Your task to perform on an android device: What's on my calendar for the rest of the month? Image 0: 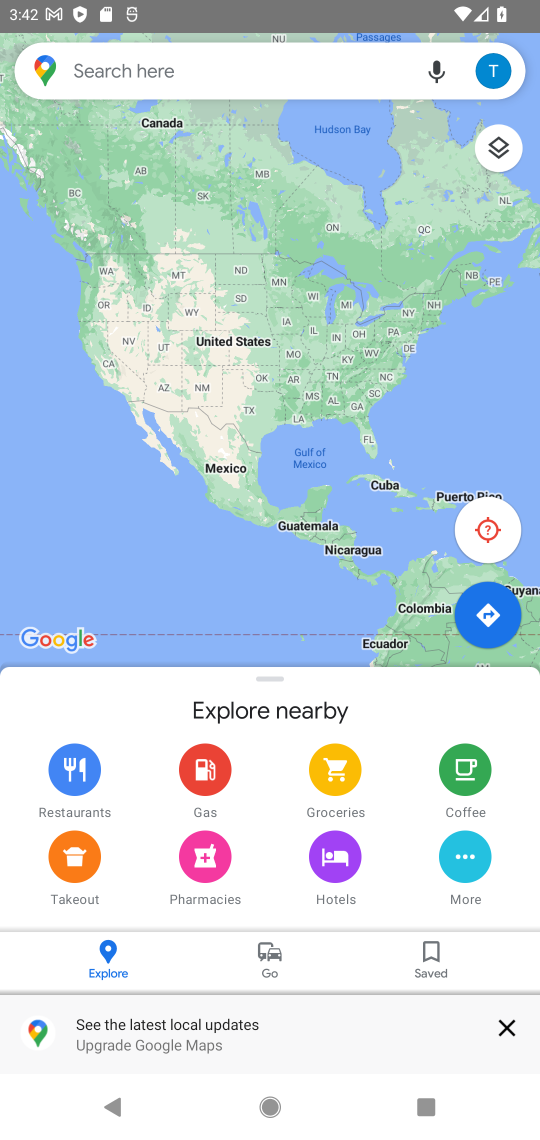
Step 0: press home button
Your task to perform on an android device: What's on my calendar for the rest of the month? Image 1: 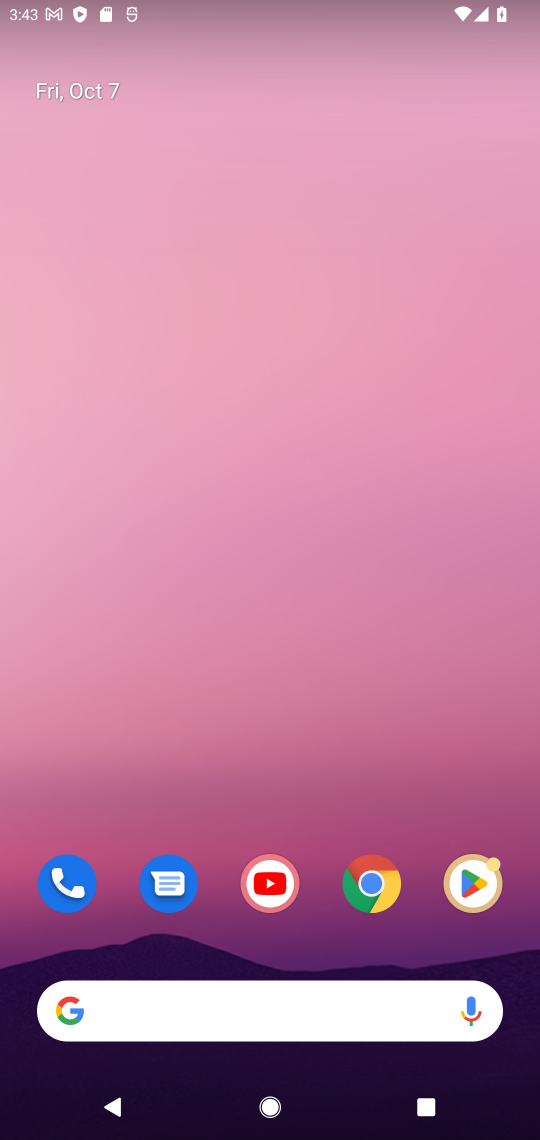
Step 1: drag from (300, 993) to (270, 152)
Your task to perform on an android device: What's on my calendar for the rest of the month? Image 2: 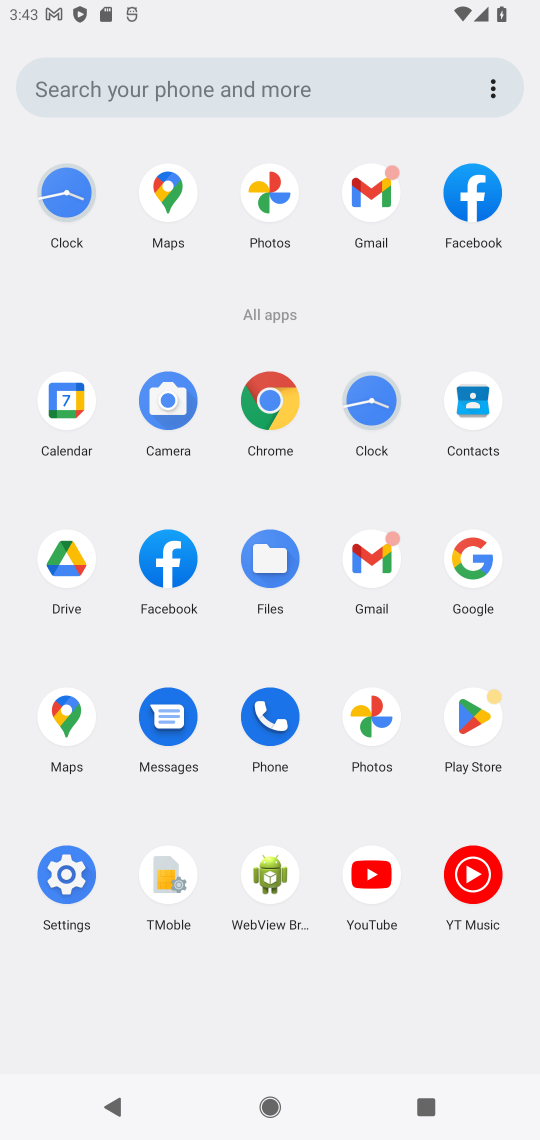
Step 2: click (60, 397)
Your task to perform on an android device: What's on my calendar for the rest of the month? Image 3: 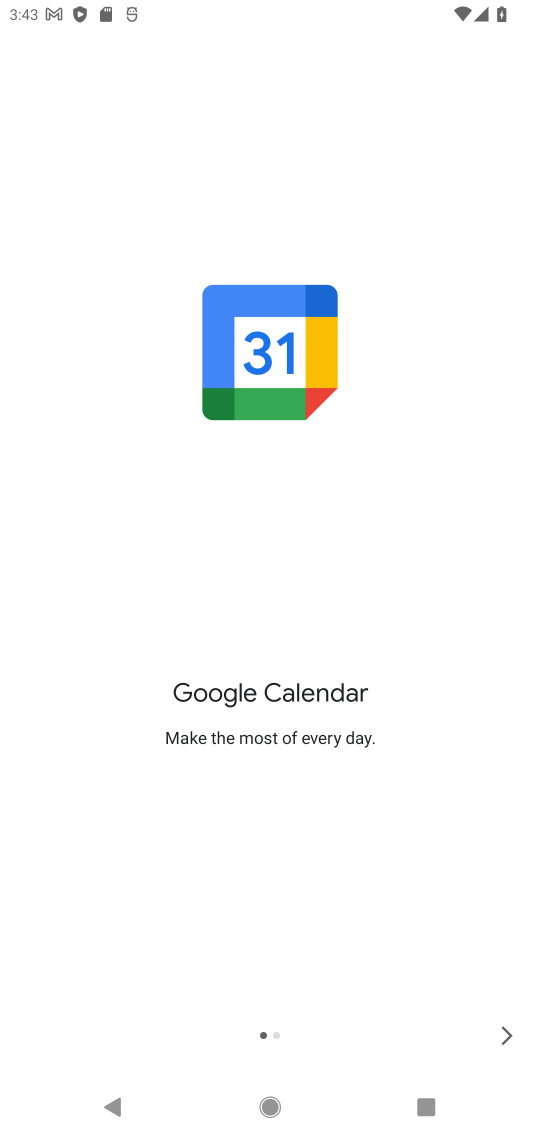
Step 3: click (511, 1037)
Your task to perform on an android device: What's on my calendar for the rest of the month? Image 4: 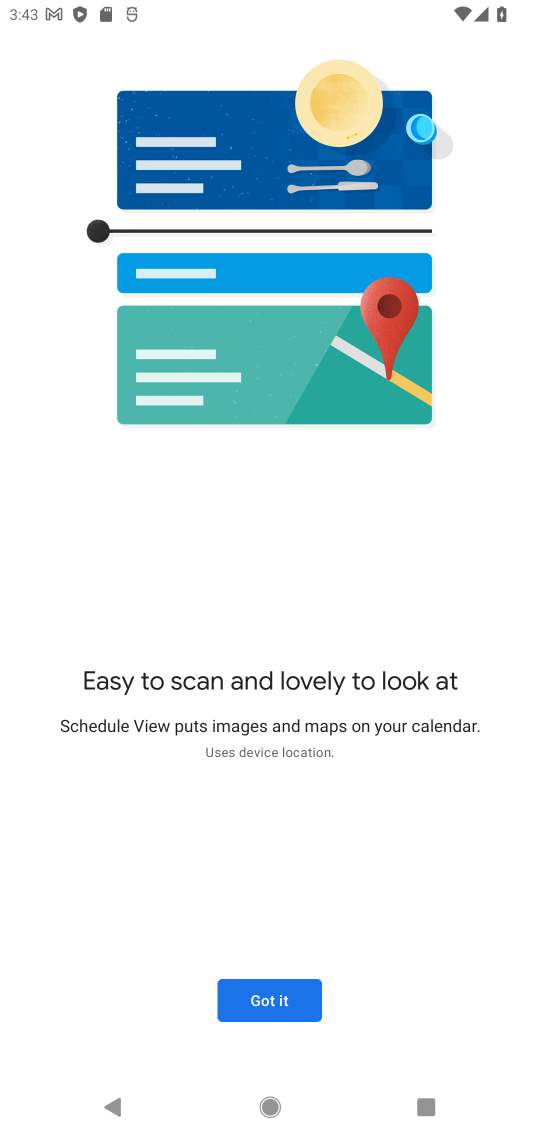
Step 4: click (303, 991)
Your task to perform on an android device: What's on my calendar for the rest of the month? Image 5: 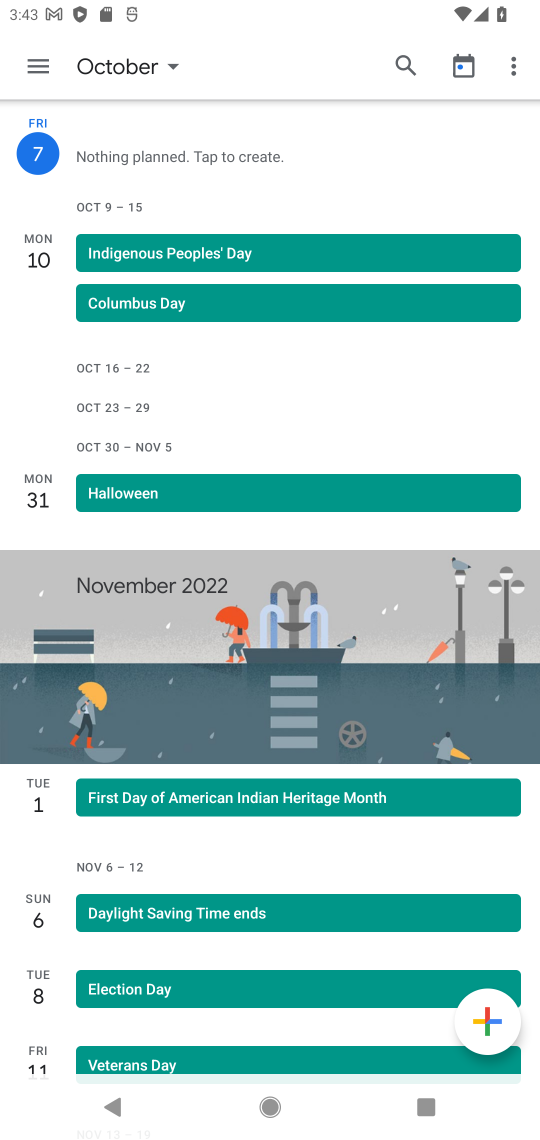
Step 5: click (41, 67)
Your task to perform on an android device: What's on my calendar for the rest of the month? Image 6: 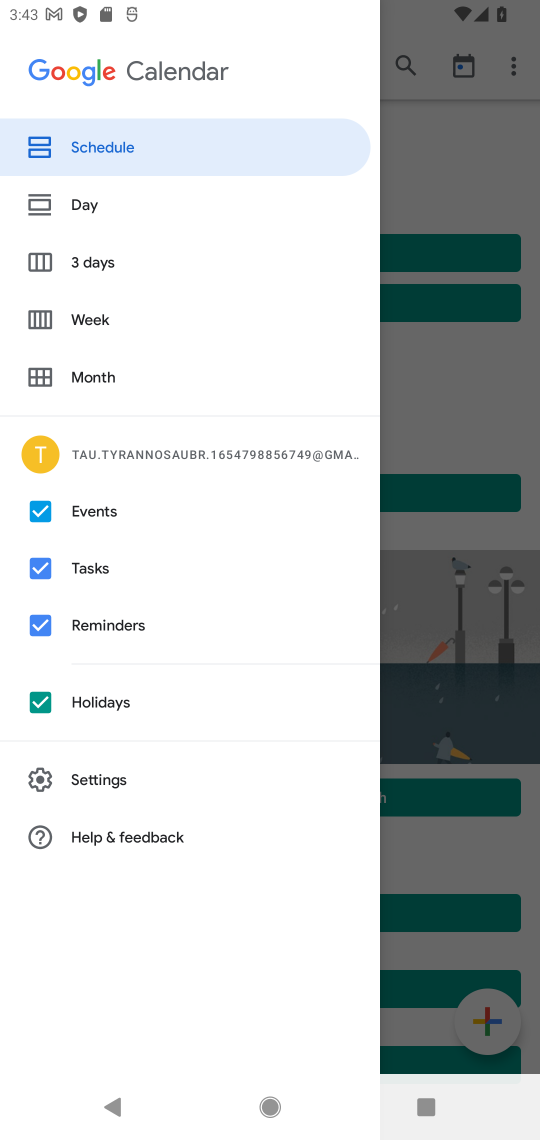
Step 6: click (103, 383)
Your task to perform on an android device: What's on my calendar for the rest of the month? Image 7: 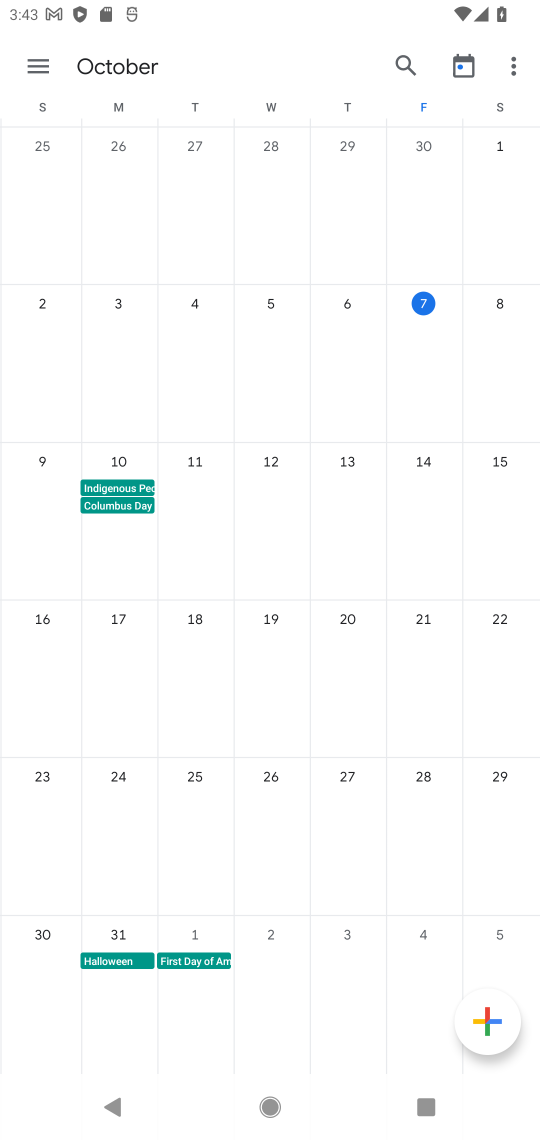
Step 7: task complete